Your task to perform on an android device: Turn off the flashlight Image 0: 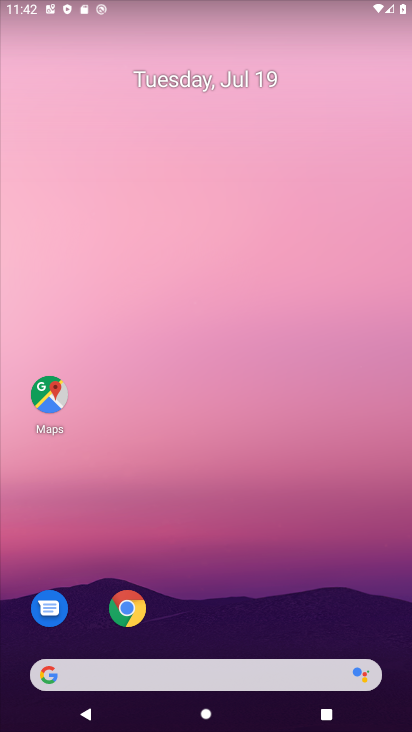
Step 0: drag from (214, 626) to (217, 114)
Your task to perform on an android device: Turn off the flashlight Image 1: 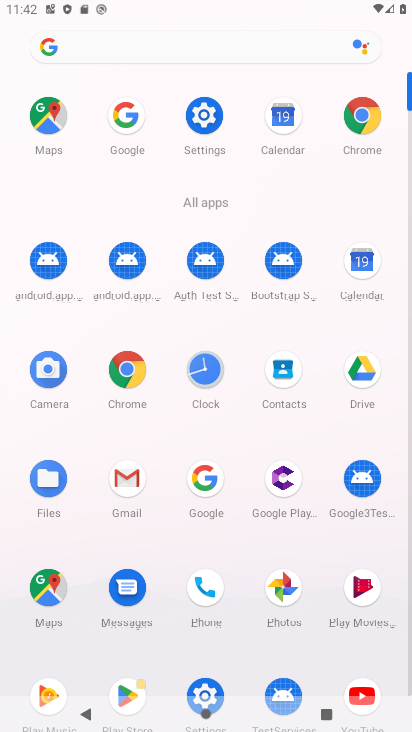
Step 1: click (208, 115)
Your task to perform on an android device: Turn off the flashlight Image 2: 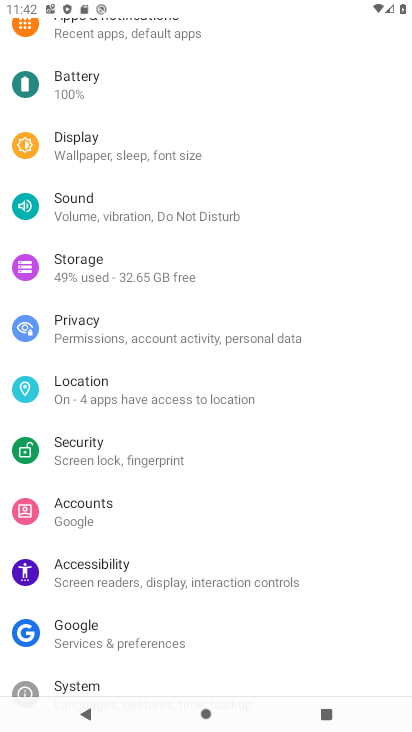
Step 2: drag from (168, 63) to (198, 588)
Your task to perform on an android device: Turn off the flashlight Image 3: 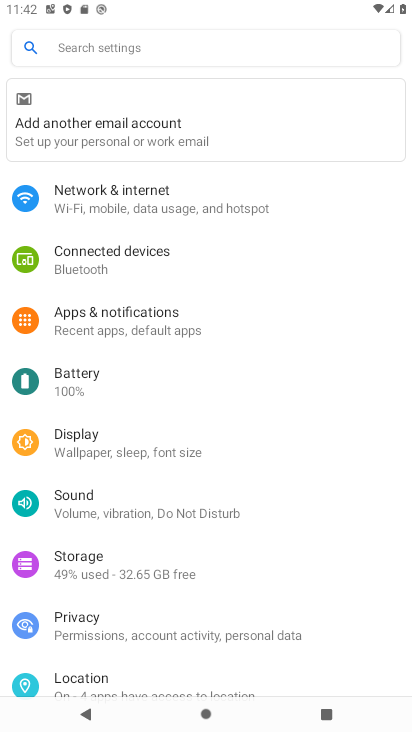
Step 3: click (173, 49)
Your task to perform on an android device: Turn off the flashlight Image 4: 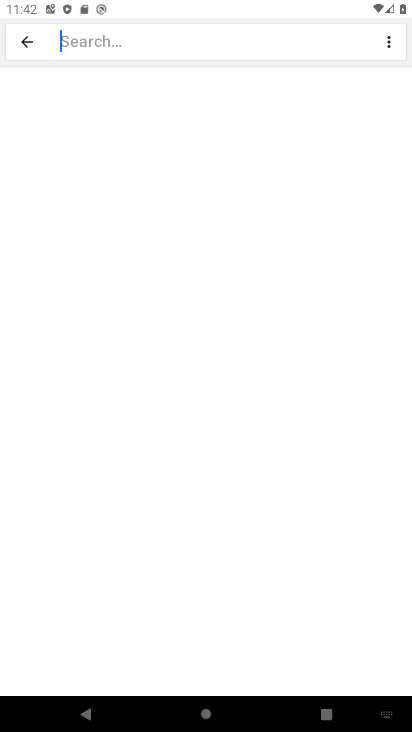
Step 4: type "flashlight"
Your task to perform on an android device: Turn off the flashlight Image 5: 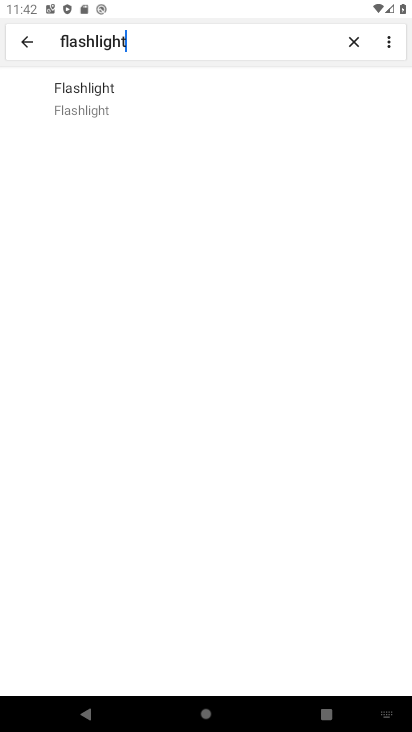
Step 5: task complete